Your task to perform on an android device: open app "Google Chrome" (install if not already installed) Image 0: 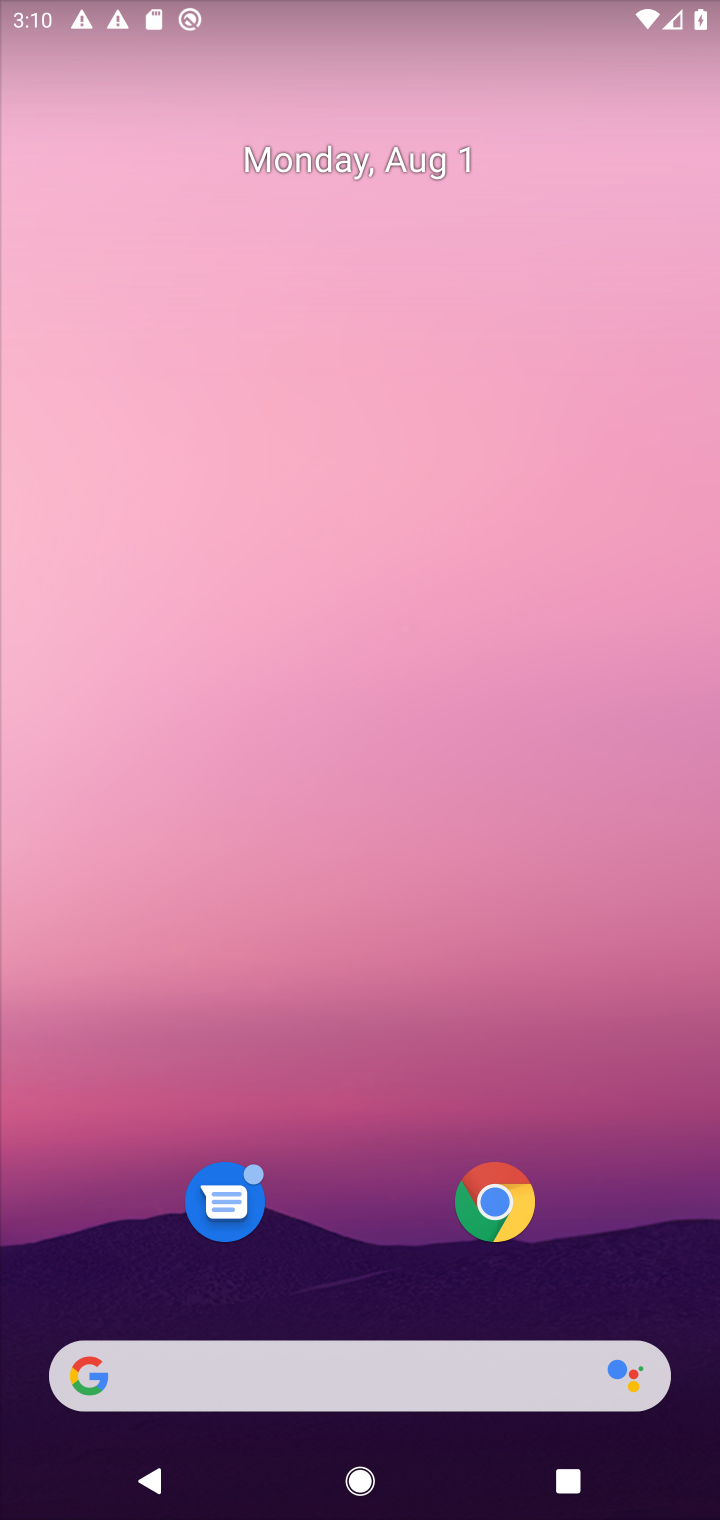
Step 0: drag from (590, 1136) to (620, 129)
Your task to perform on an android device: open app "Google Chrome" (install if not already installed) Image 1: 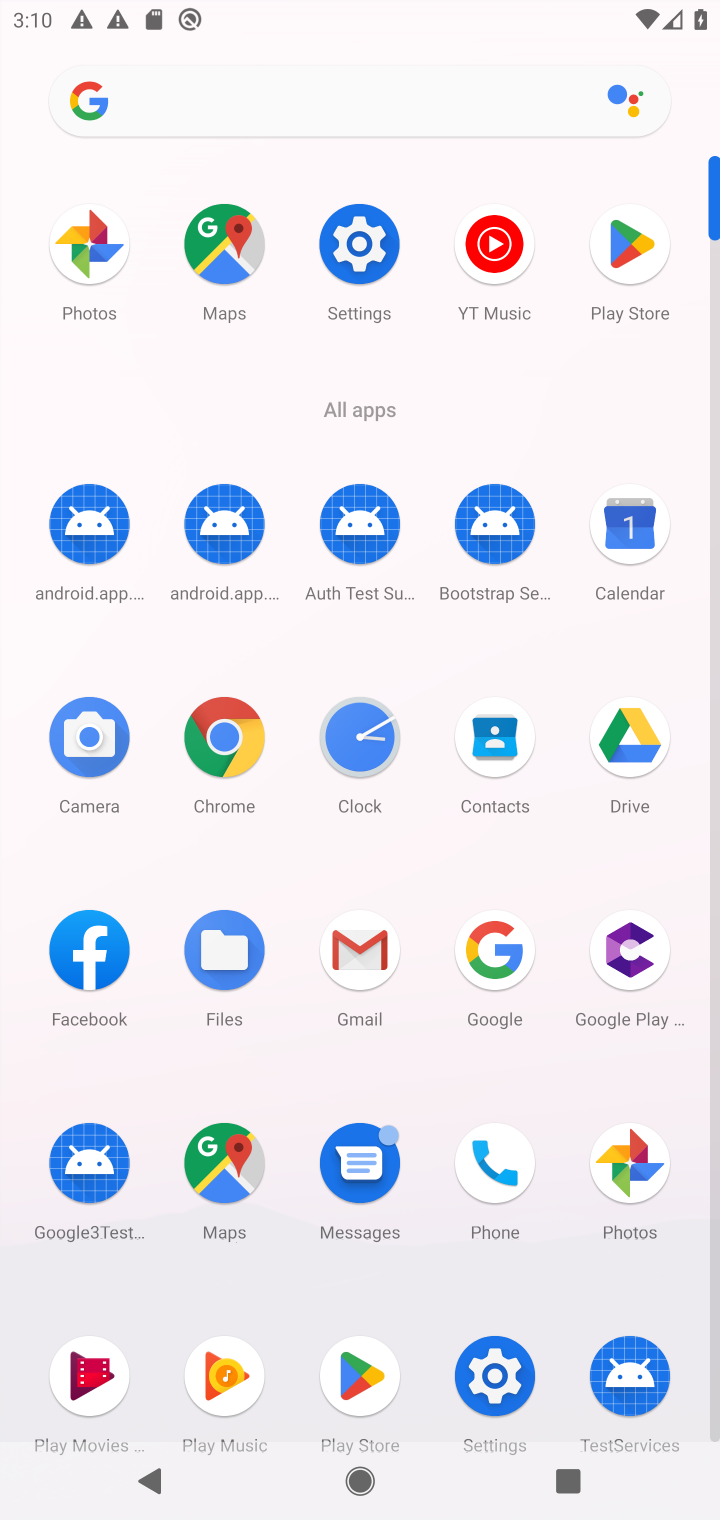
Step 1: click (637, 224)
Your task to perform on an android device: open app "Google Chrome" (install if not already installed) Image 2: 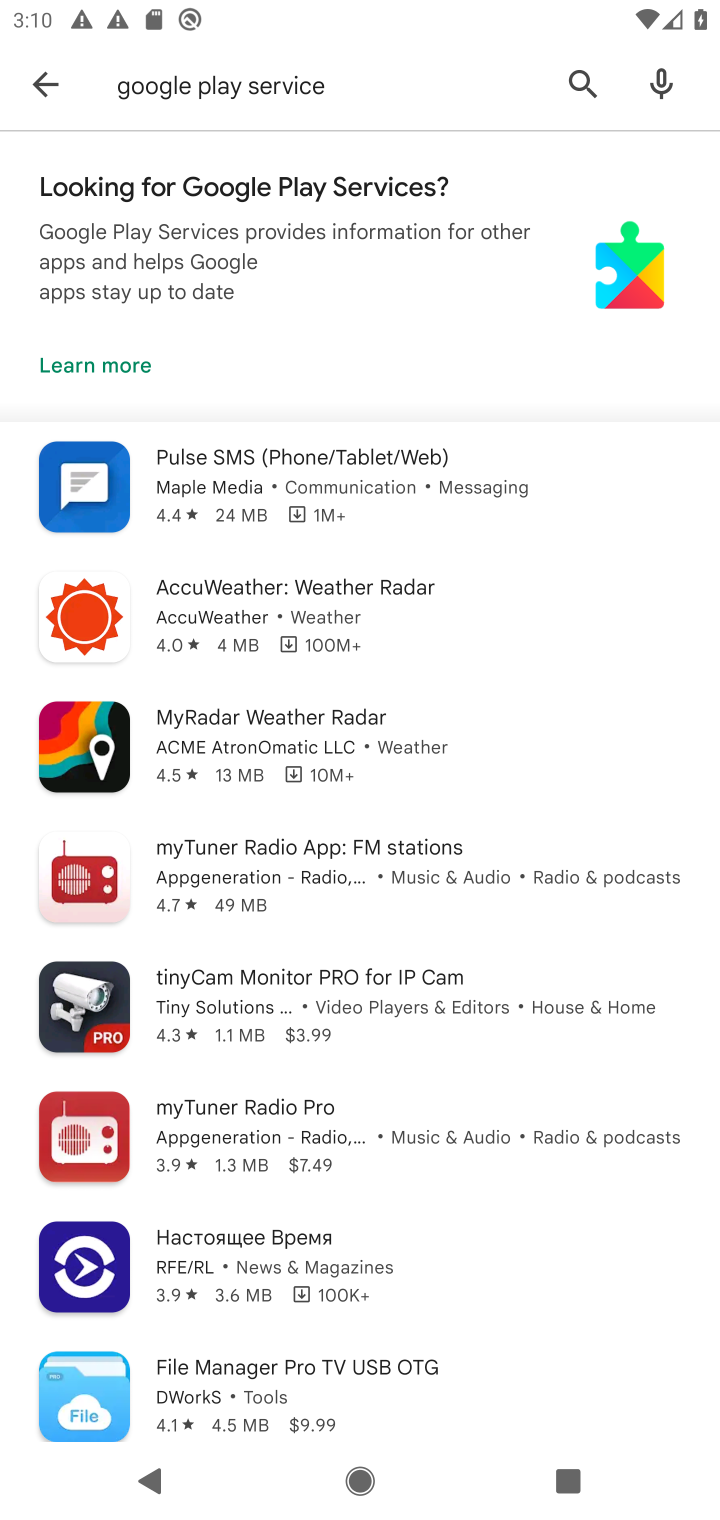
Step 2: click (183, 74)
Your task to perform on an android device: open app "Google Chrome" (install if not already installed) Image 3: 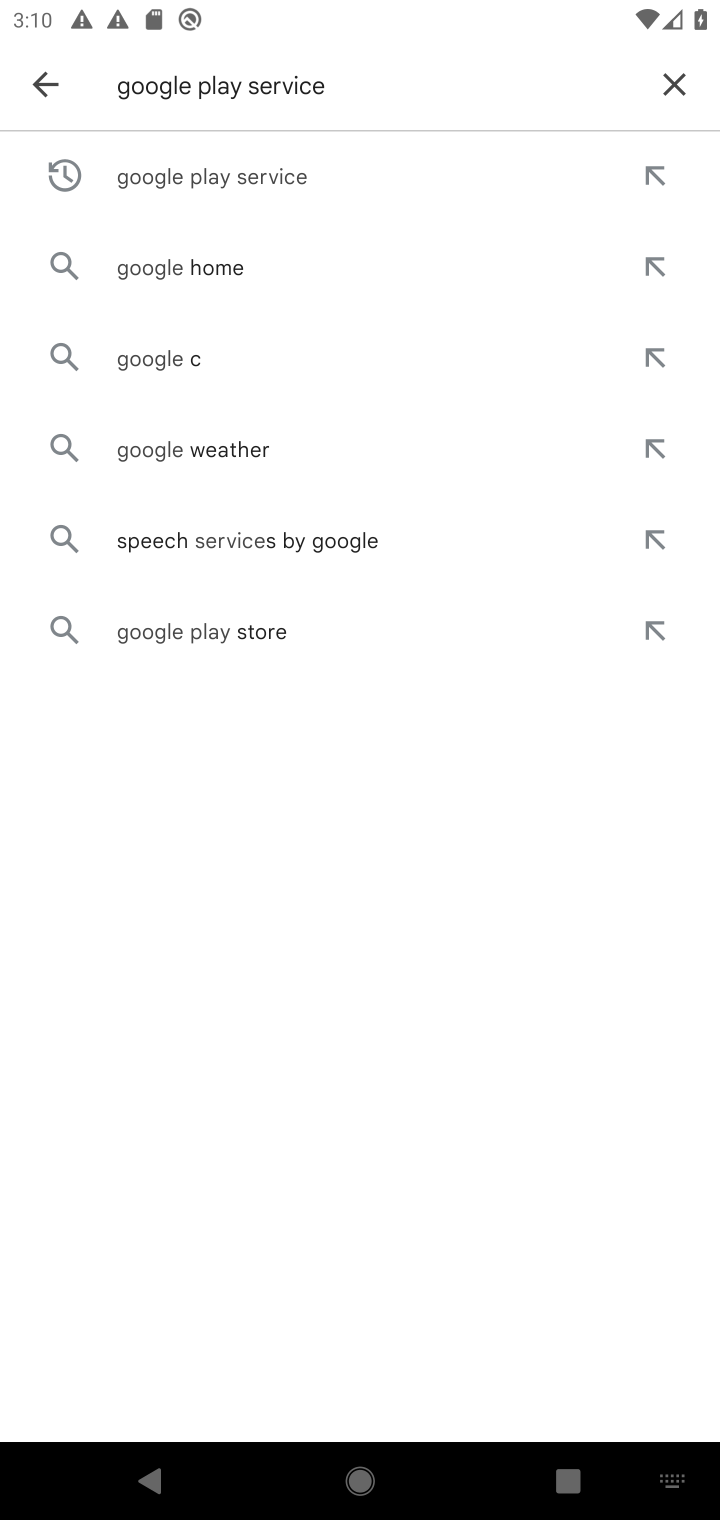
Step 3: click (686, 70)
Your task to perform on an android device: open app "Google Chrome" (install if not already installed) Image 4: 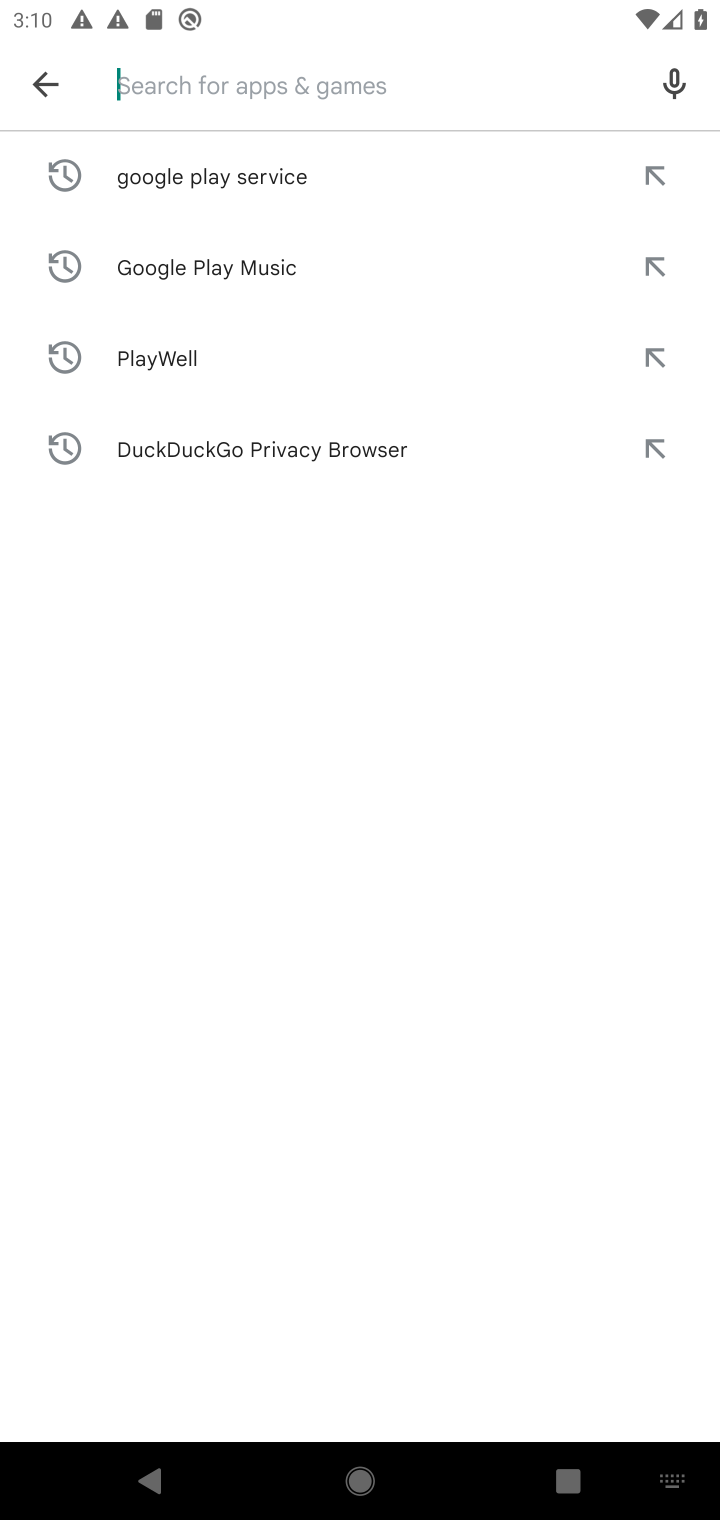
Step 4: type "Google Chrome"
Your task to perform on an android device: open app "Google Chrome" (install if not already installed) Image 5: 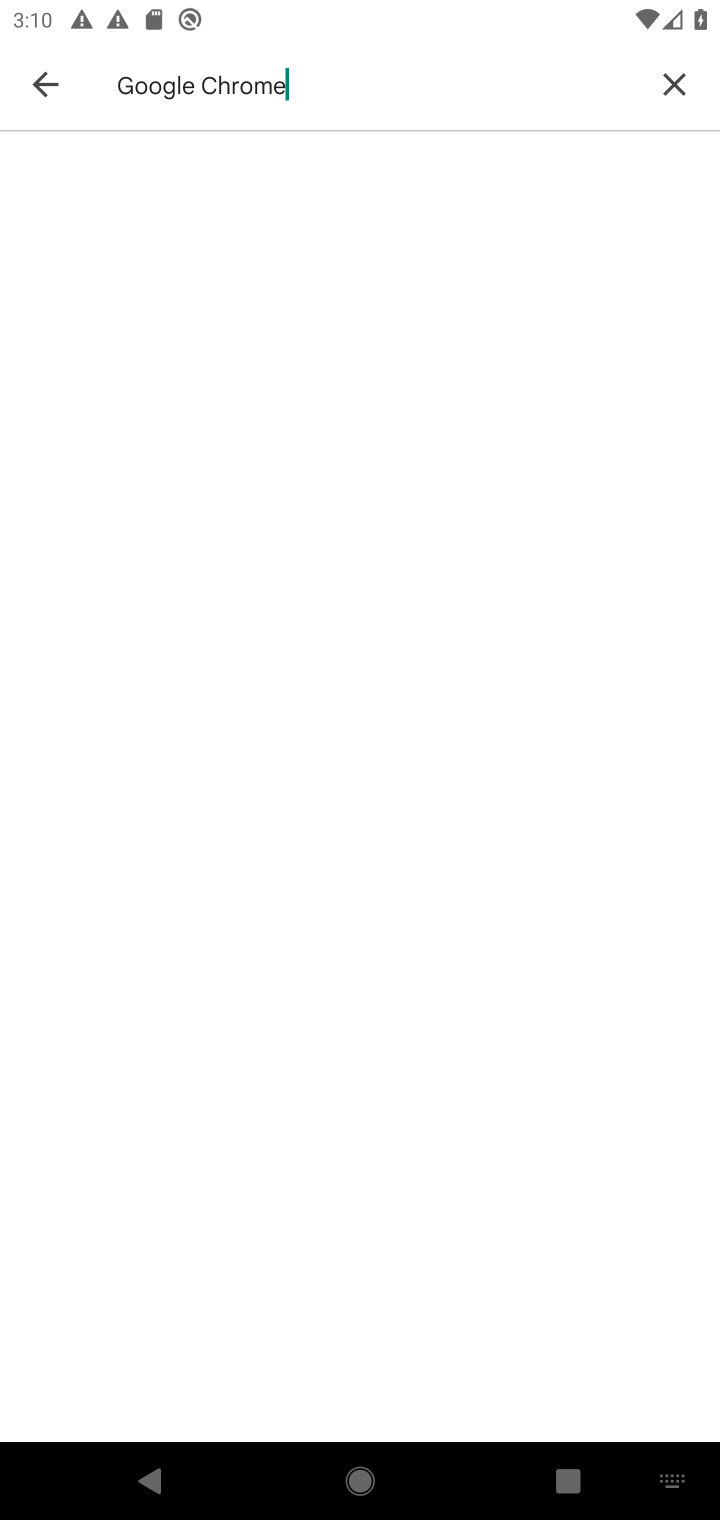
Step 5: press enter
Your task to perform on an android device: open app "Google Chrome" (install if not already installed) Image 6: 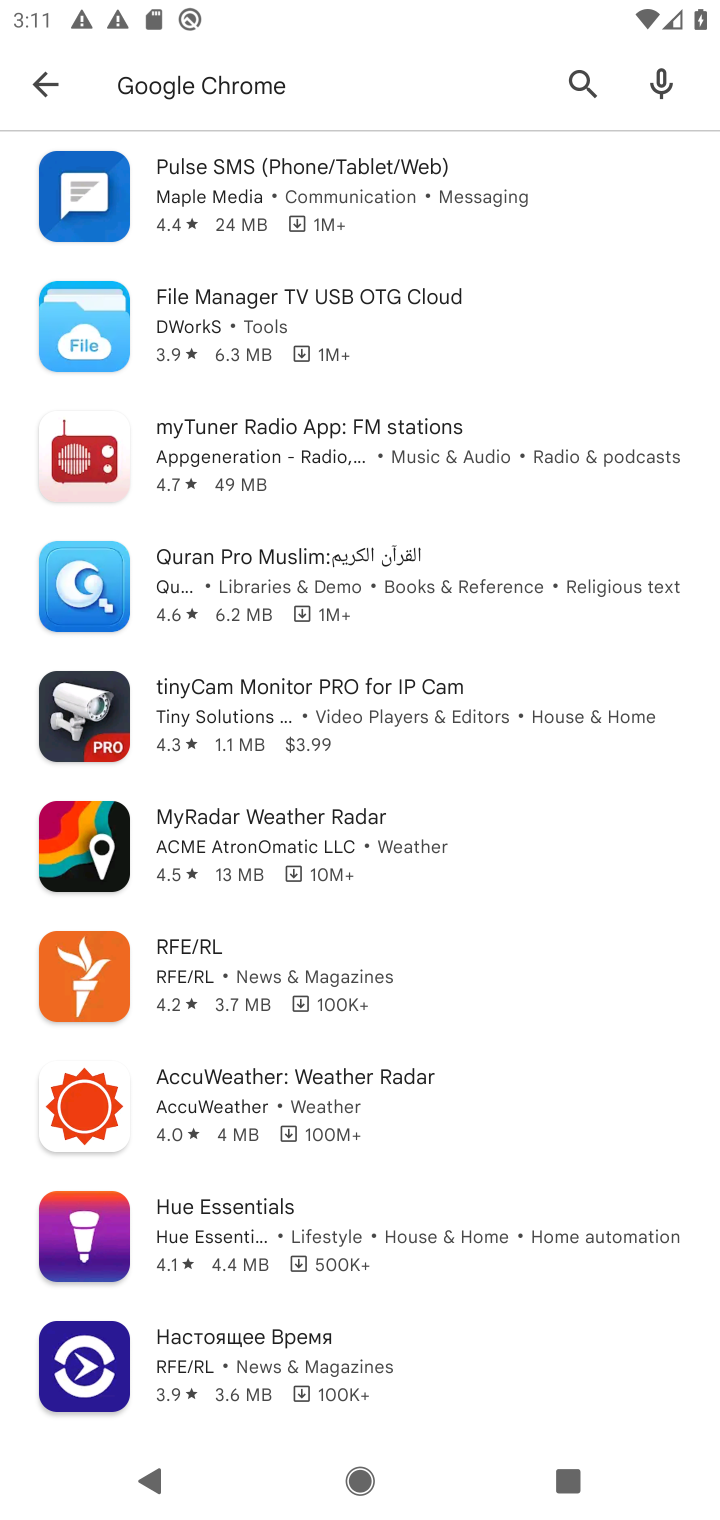
Step 6: click (217, 855)
Your task to perform on an android device: open app "Google Chrome" (install if not already installed) Image 7: 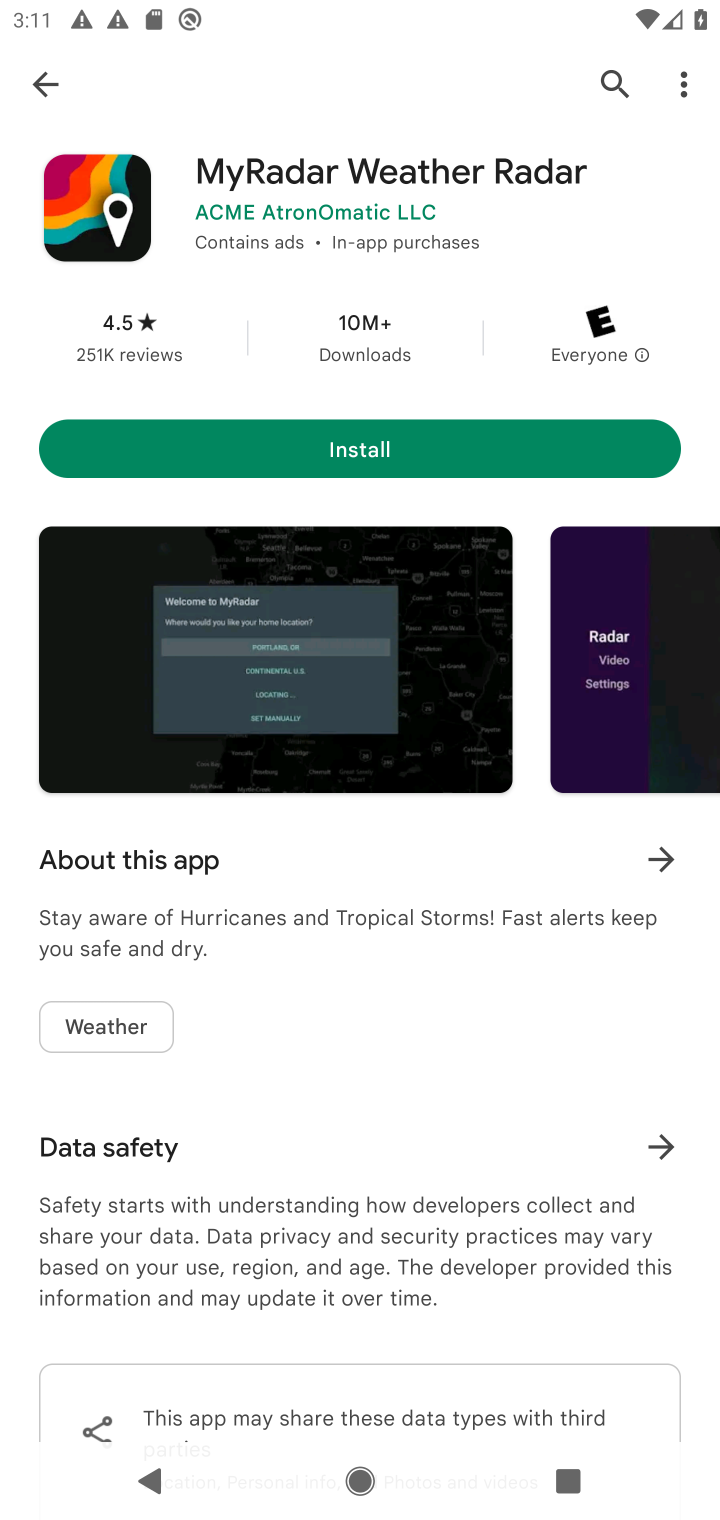
Step 7: press home button
Your task to perform on an android device: open app "Google Chrome" (install if not already installed) Image 8: 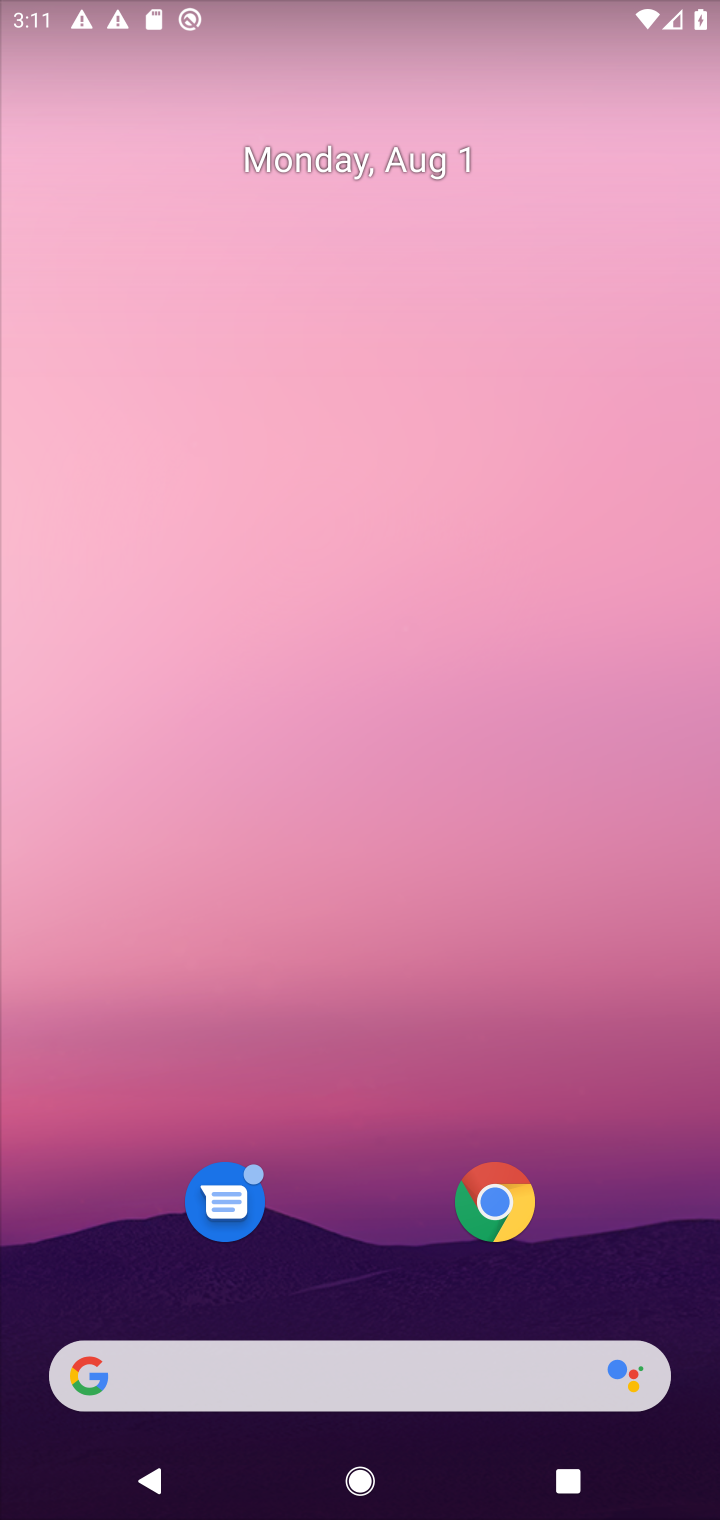
Step 8: drag from (407, 716) to (504, 92)
Your task to perform on an android device: open app "Google Chrome" (install if not already installed) Image 9: 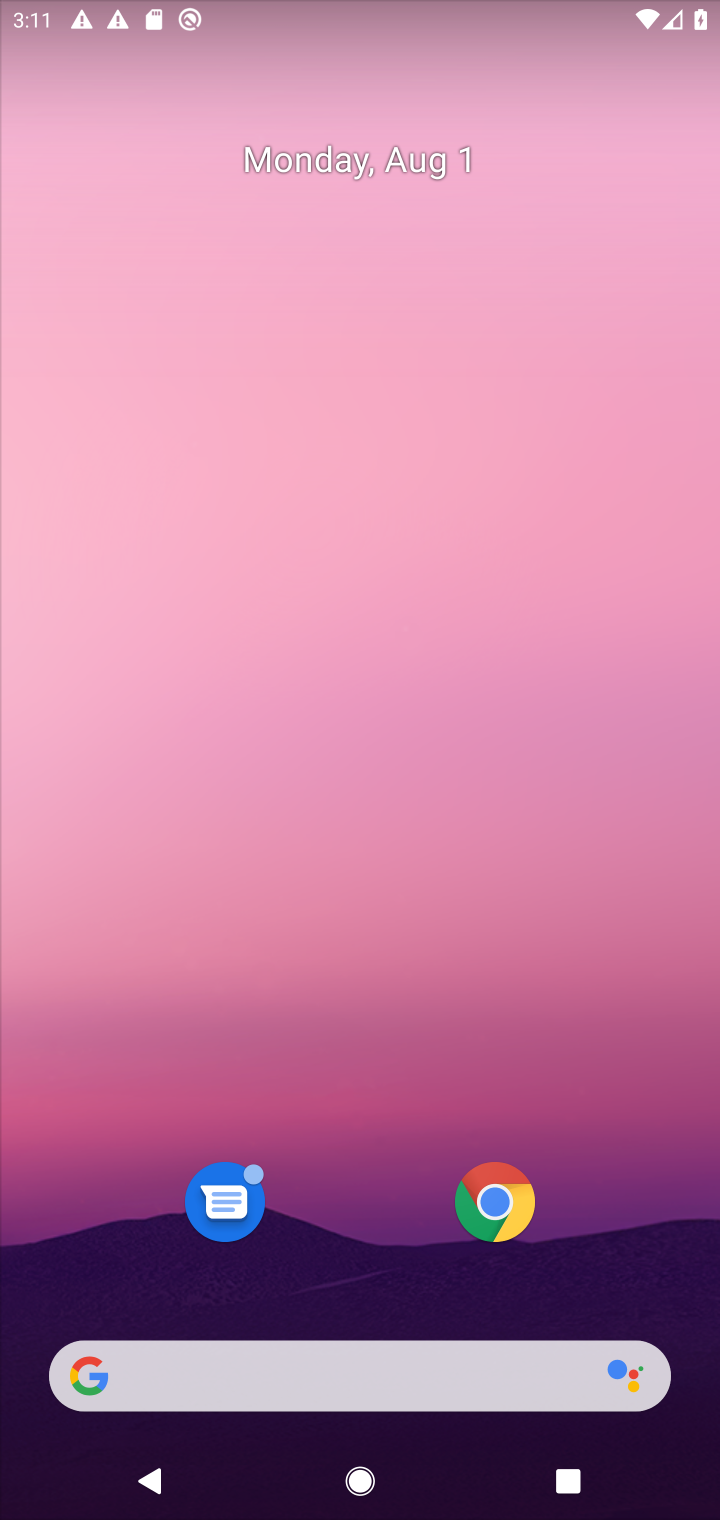
Step 9: drag from (324, 571) to (381, 56)
Your task to perform on an android device: open app "Google Chrome" (install if not already installed) Image 10: 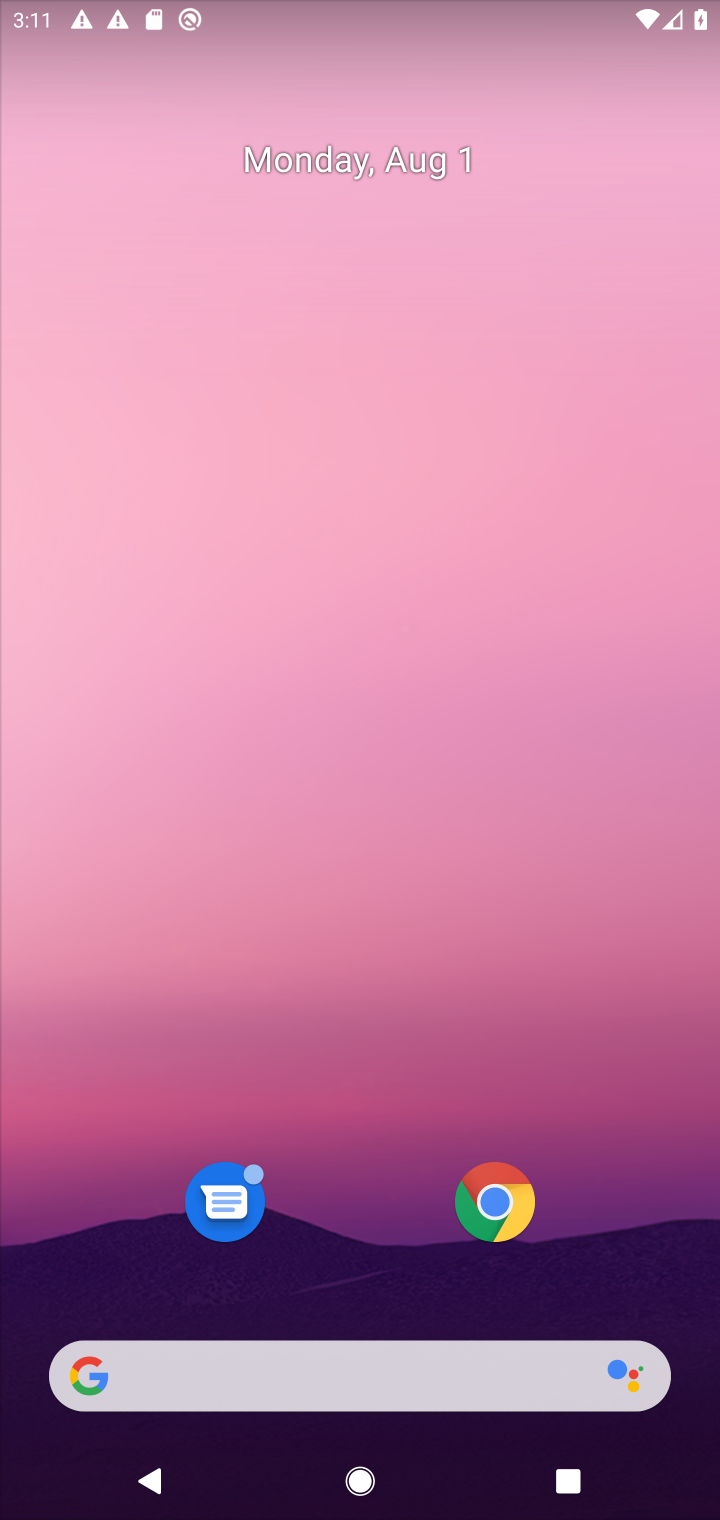
Step 10: drag from (349, 1258) to (425, 180)
Your task to perform on an android device: open app "Google Chrome" (install if not already installed) Image 11: 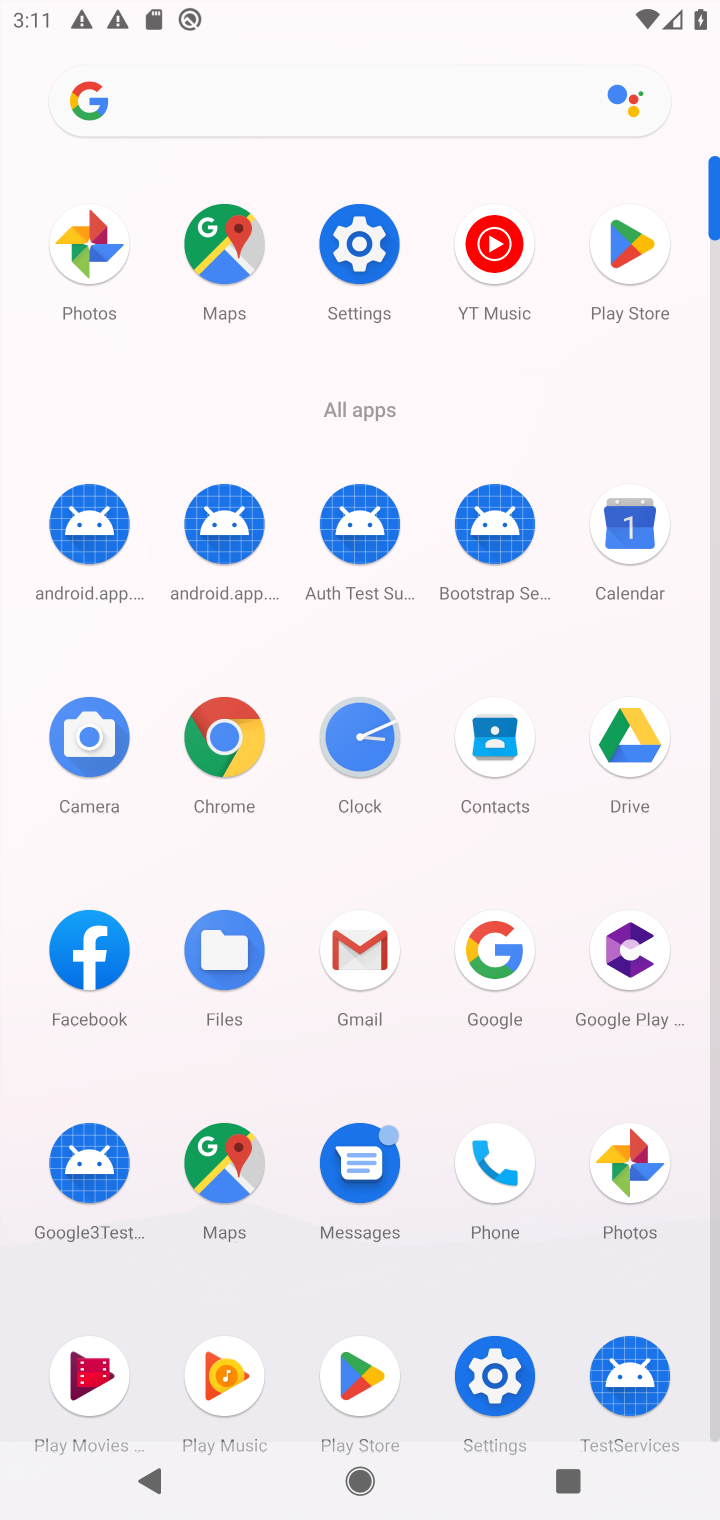
Step 11: click (224, 728)
Your task to perform on an android device: open app "Google Chrome" (install if not already installed) Image 12: 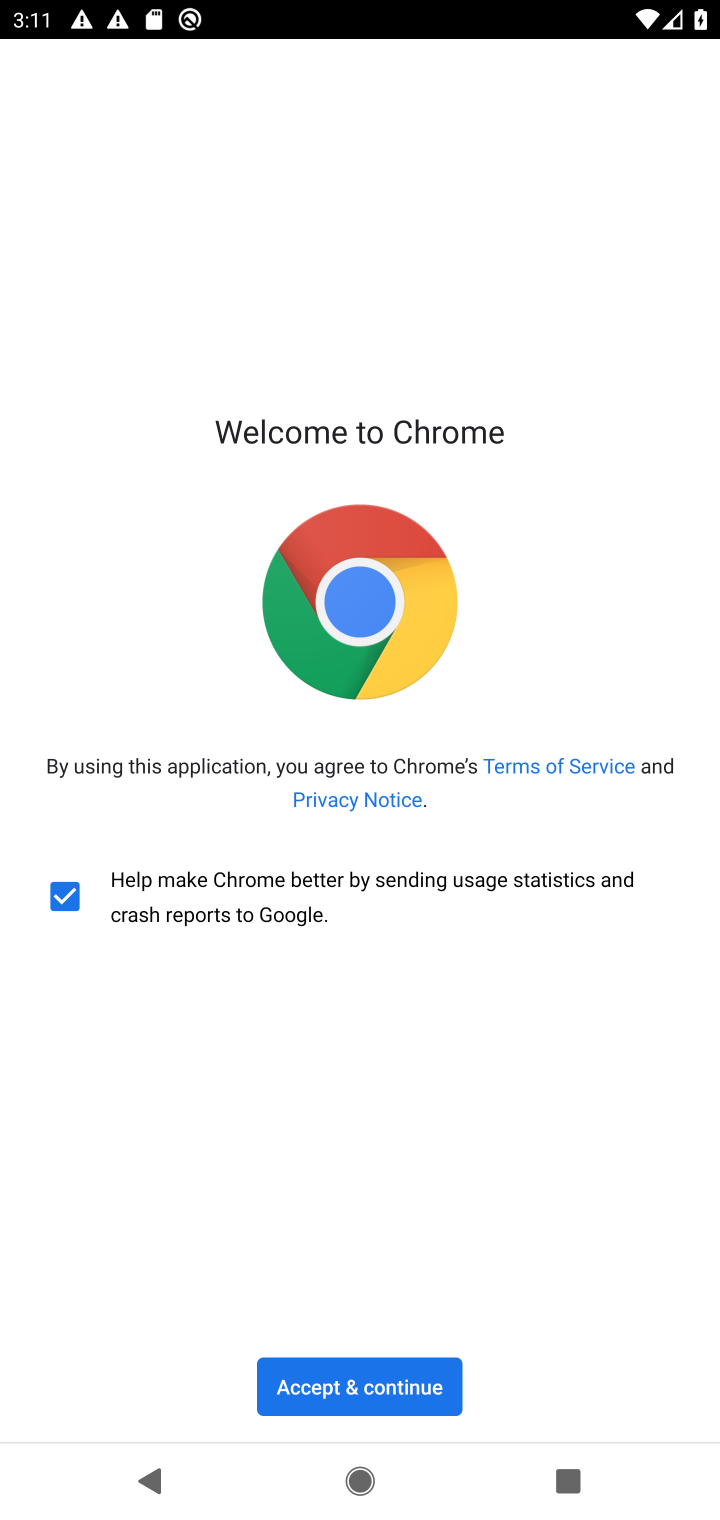
Step 12: task complete